Your task to perform on an android device: delete location history Image 0: 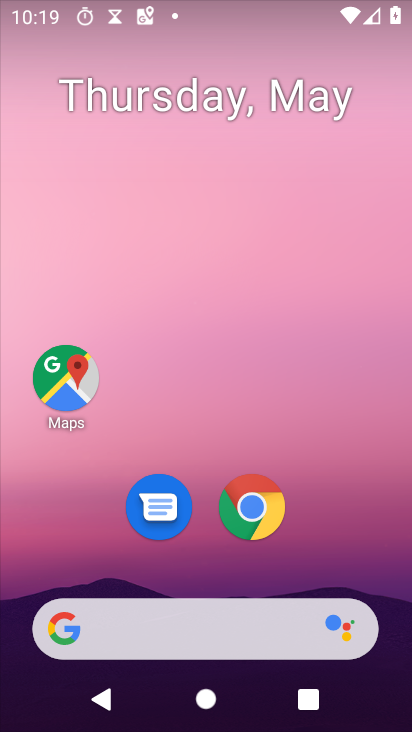
Step 0: drag from (150, 728) to (134, 9)
Your task to perform on an android device: delete location history Image 1: 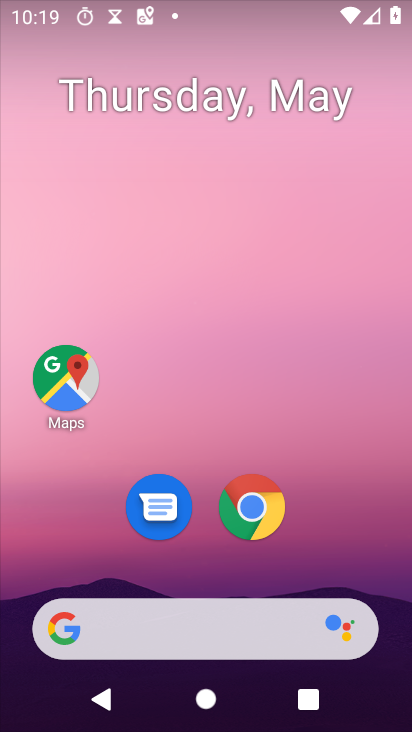
Step 1: drag from (156, 731) to (242, 61)
Your task to perform on an android device: delete location history Image 2: 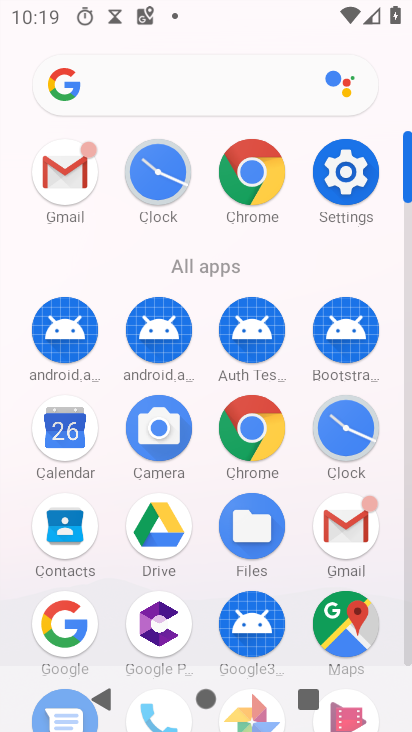
Step 2: drag from (199, 600) to (204, 541)
Your task to perform on an android device: delete location history Image 3: 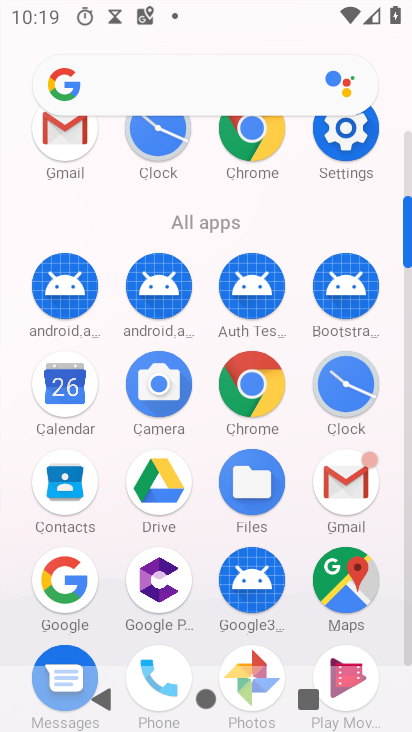
Step 3: click (354, 145)
Your task to perform on an android device: delete location history Image 4: 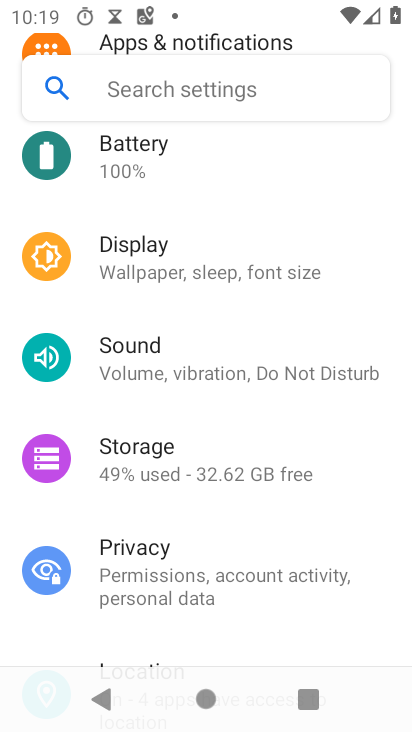
Step 4: drag from (243, 622) to (235, 262)
Your task to perform on an android device: delete location history Image 5: 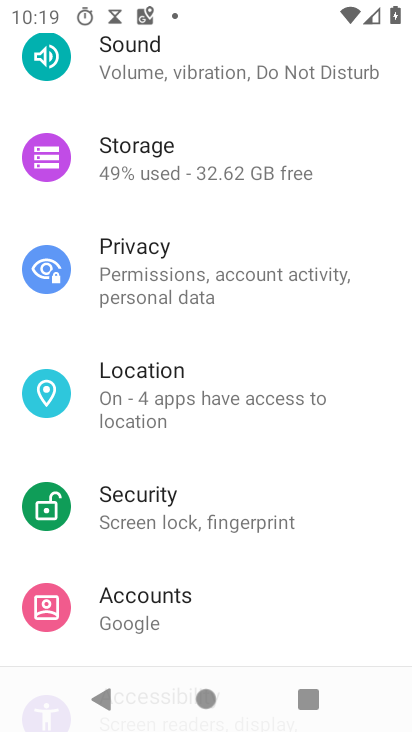
Step 5: click (166, 386)
Your task to perform on an android device: delete location history Image 6: 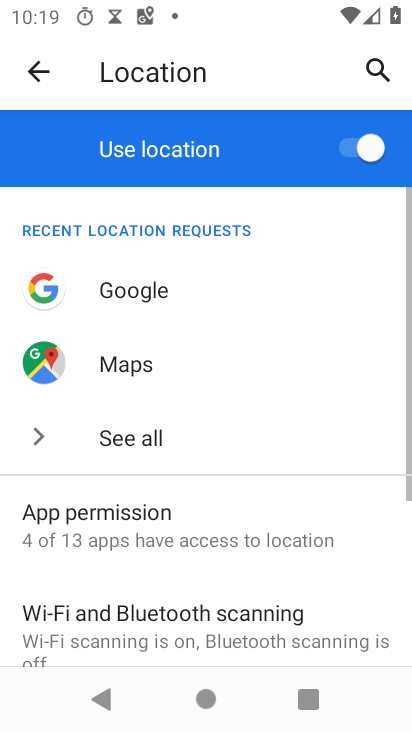
Step 6: drag from (250, 571) to (290, 611)
Your task to perform on an android device: delete location history Image 7: 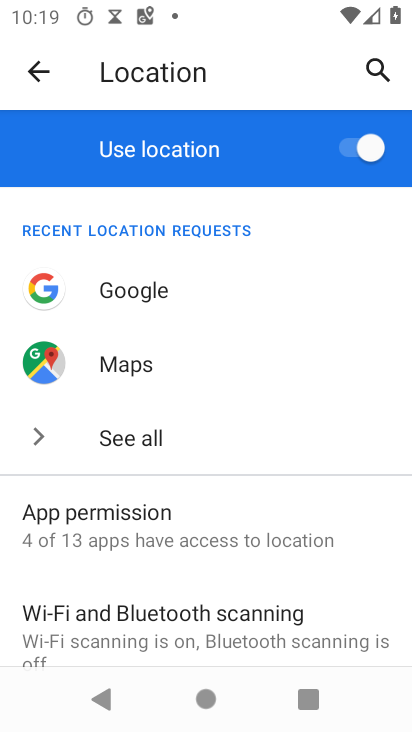
Step 7: drag from (216, 524) to (218, 330)
Your task to perform on an android device: delete location history Image 8: 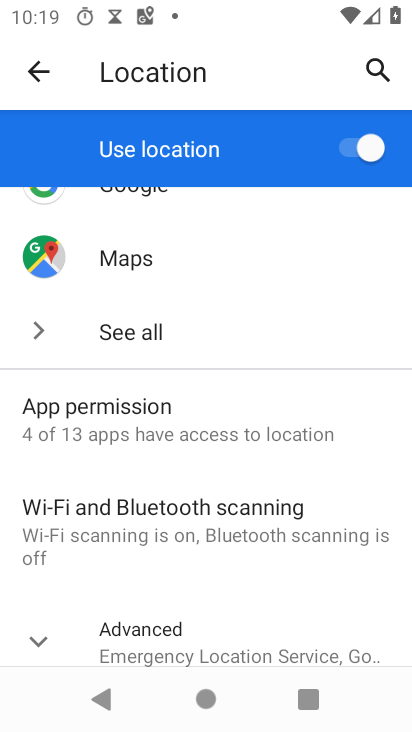
Step 8: click (248, 647)
Your task to perform on an android device: delete location history Image 9: 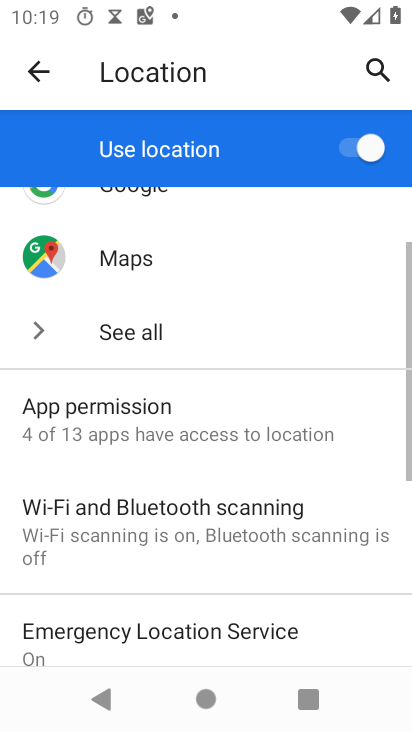
Step 9: drag from (246, 643) to (271, 311)
Your task to perform on an android device: delete location history Image 10: 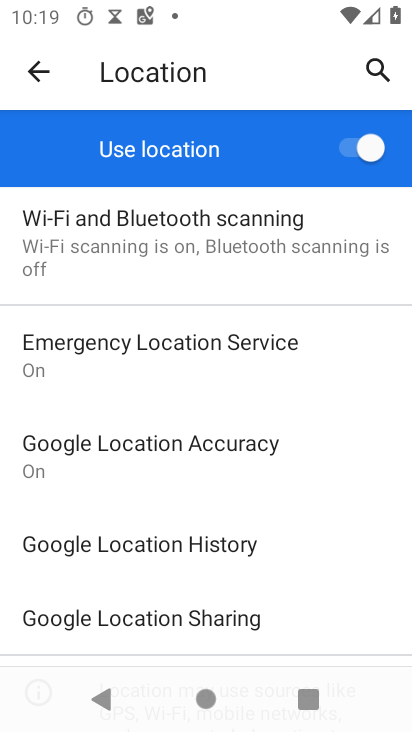
Step 10: click (182, 551)
Your task to perform on an android device: delete location history Image 11: 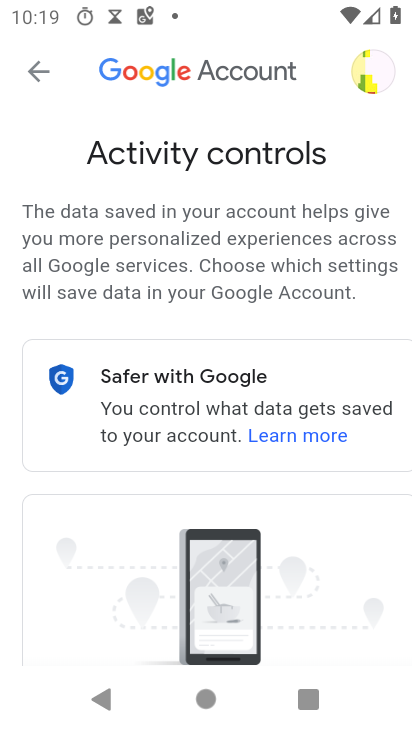
Step 11: drag from (157, 611) to (219, 235)
Your task to perform on an android device: delete location history Image 12: 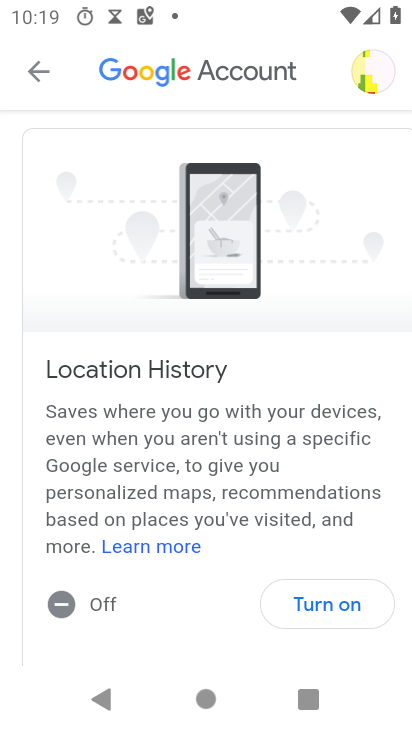
Step 12: drag from (178, 585) to (201, 187)
Your task to perform on an android device: delete location history Image 13: 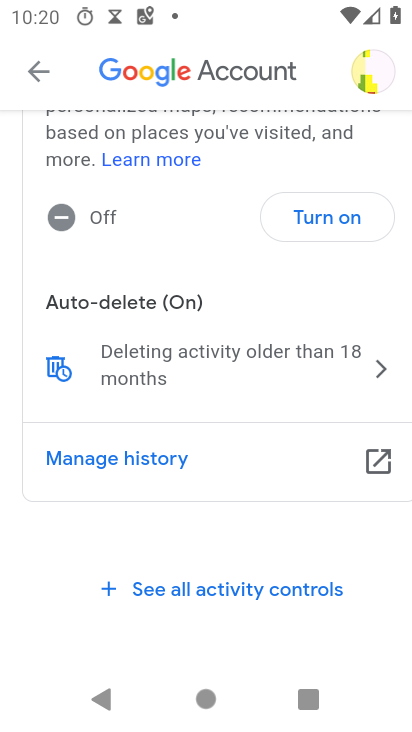
Step 13: click (222, 375)
Your task to perform on an android device: delete location history Image 14: 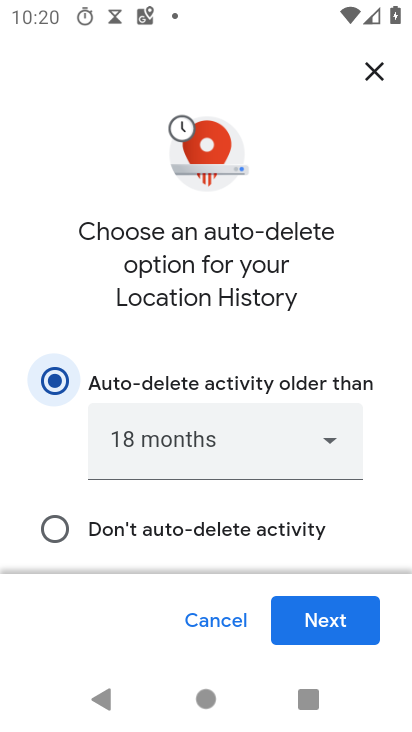
Step 14: click (299, 445)
Your task to perform on an android device: delete location history Image 15: 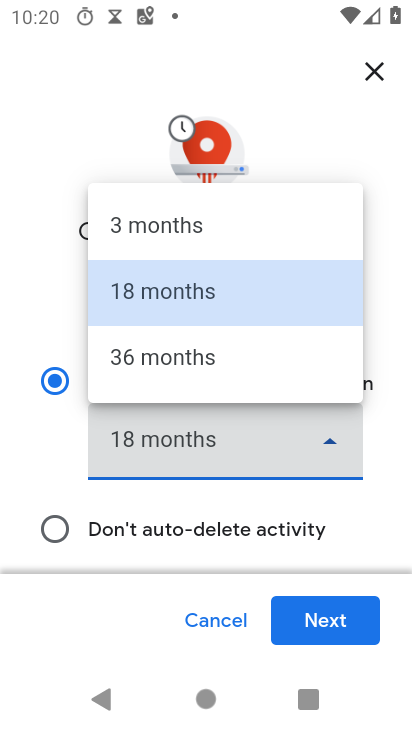
Step 15: click (206, 222)
Your task to perform on an android device: delete location history Image 16: 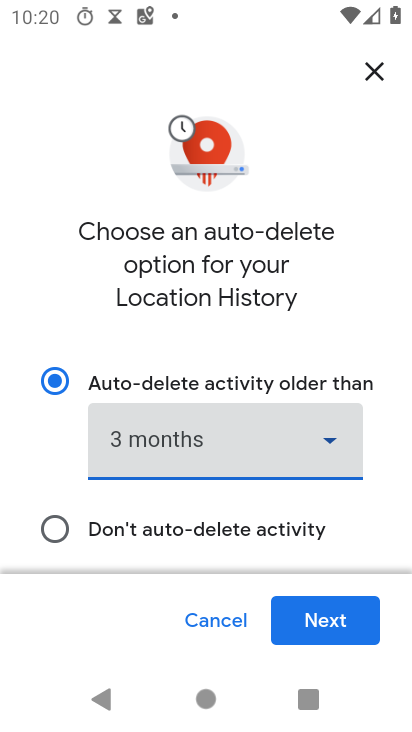
Step 16: drag from (226, 499) to (213, 242)
Your task to perform on an android device: delete location history Image 17: 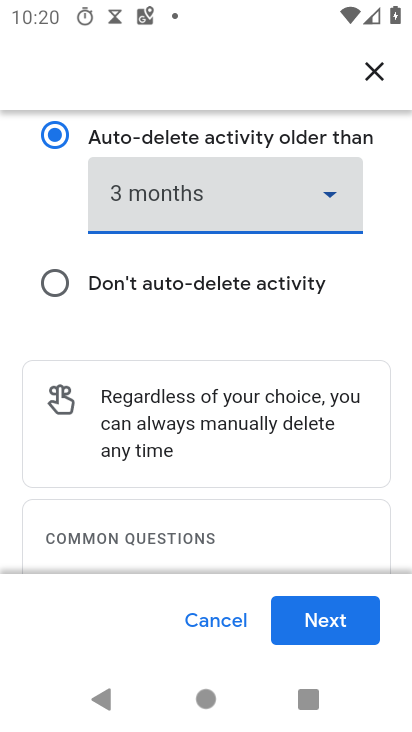
Step 17: click (307, 627)
Your task to perform on an android device: delete location history Image 18: 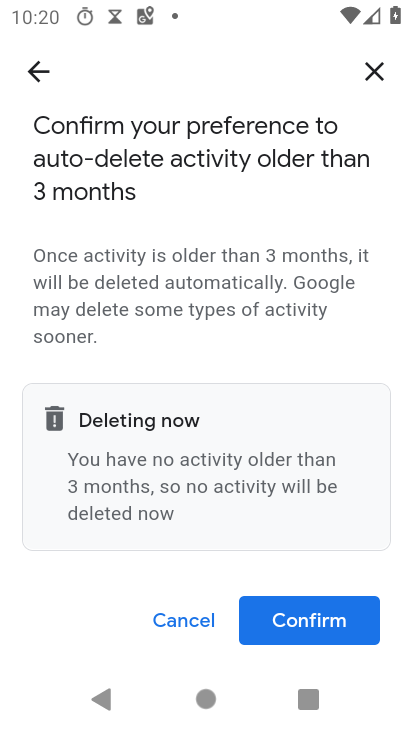
Step 18: click (331, 639)
Your task to perform on an android device: delete location history Image 19: 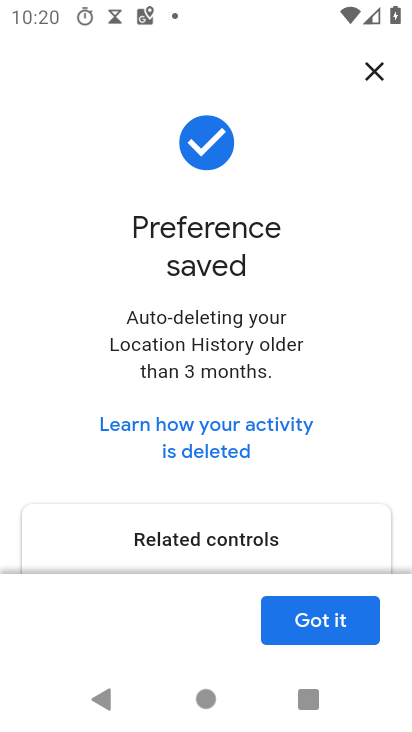
Step 19: drag from (291, 443) to (256, 203)
Your task to perform on an android device: delete location history Image 20: 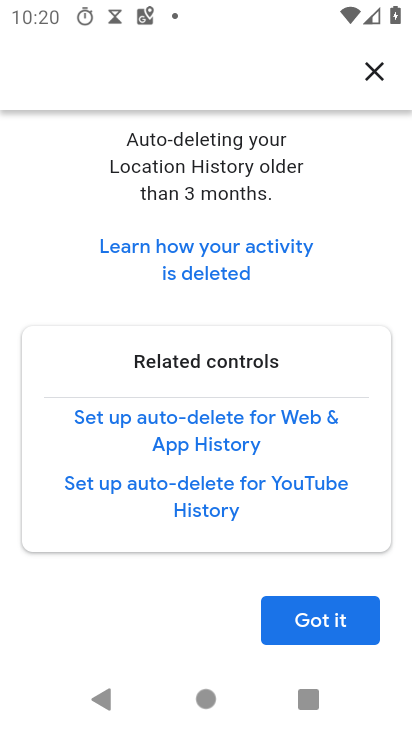
Step 20: click (274, 615)
Your task to perform on an android device: delete location history Image 21: 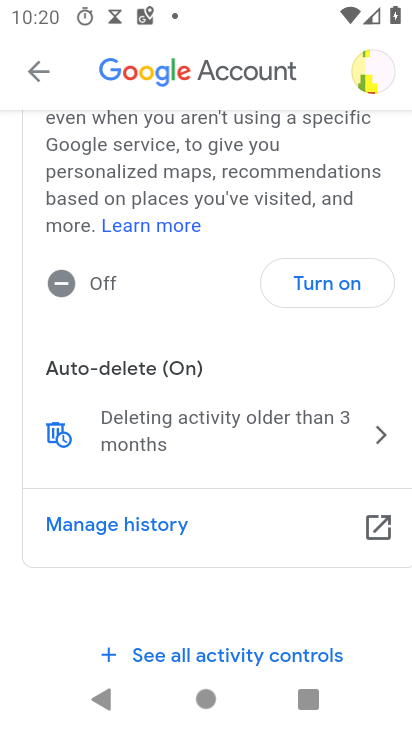
Step 21: task complete